Your task to perform on an android device: Go to notification settings Image 0: 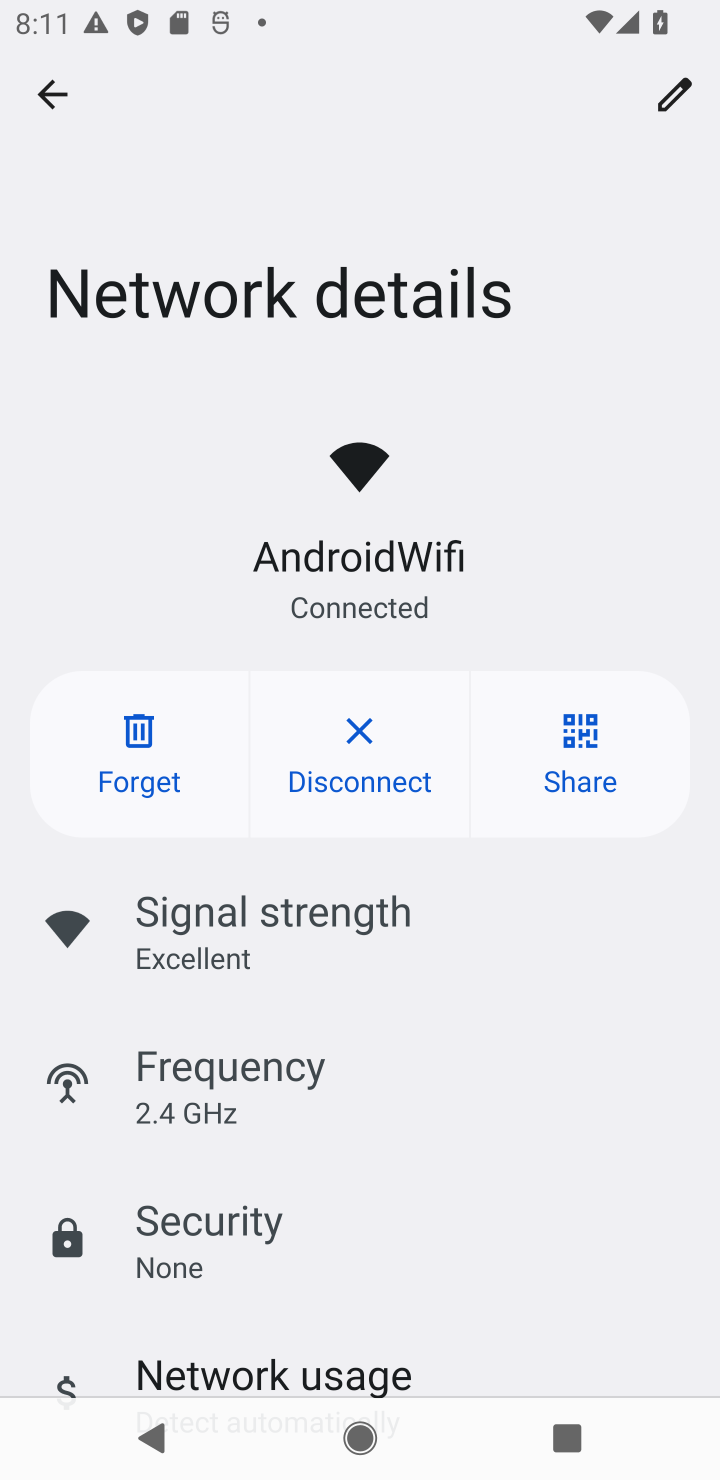
Step 0: click (56, 104)
Your task to perform on an android device: Go to notification settings Image 1: 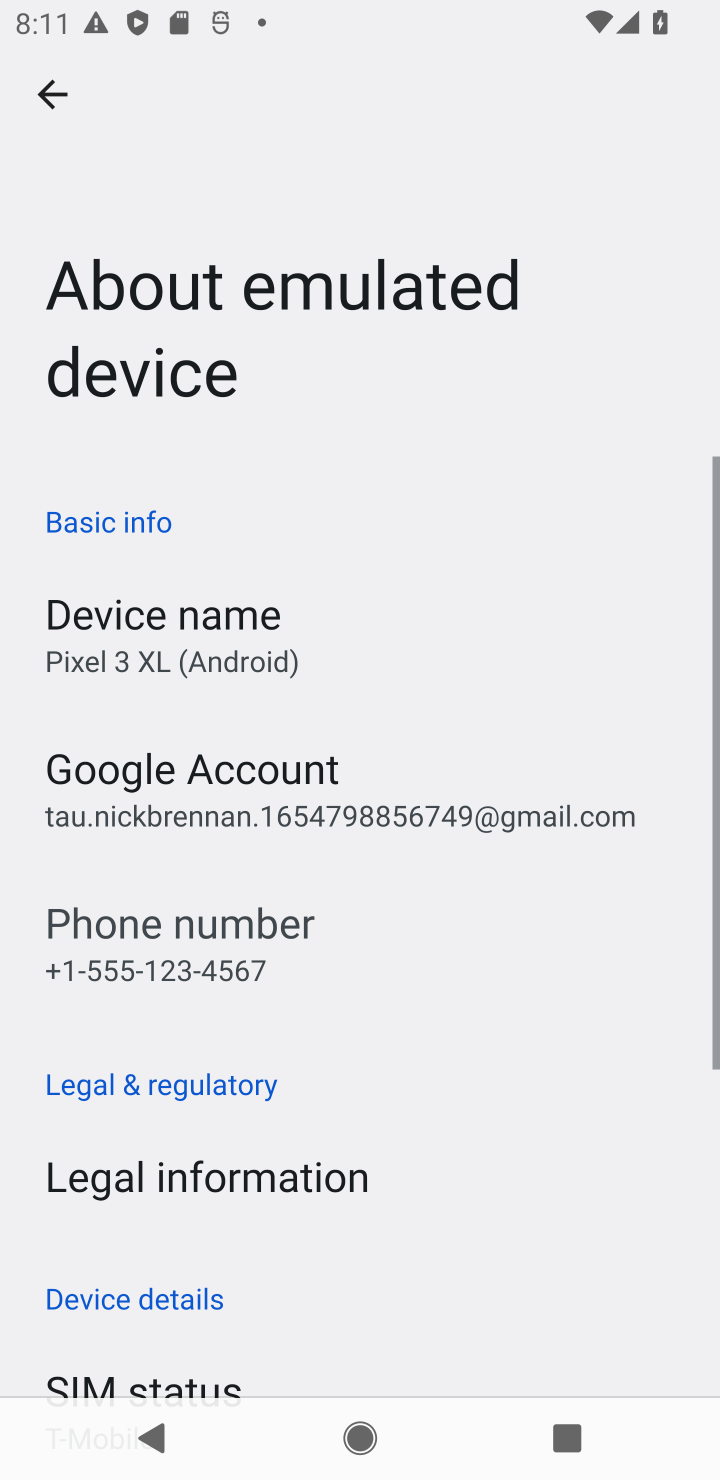
Step 1: click (89, 98)
Your task to perform on an android device: Go to notification settings Image 2: 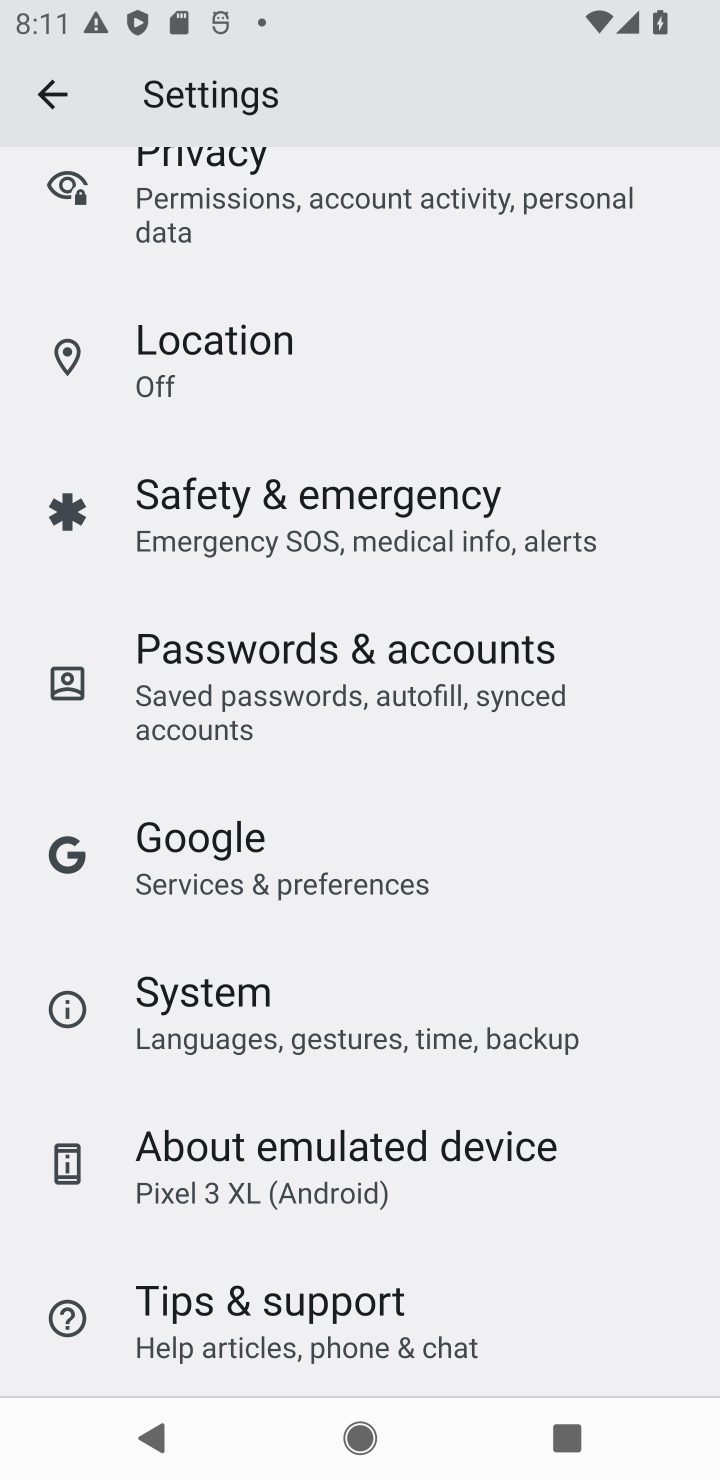
Step 2: drag from (363, 464) to (284, 1290)
Your task to perform on an android device: Go to notification settings Image 3: 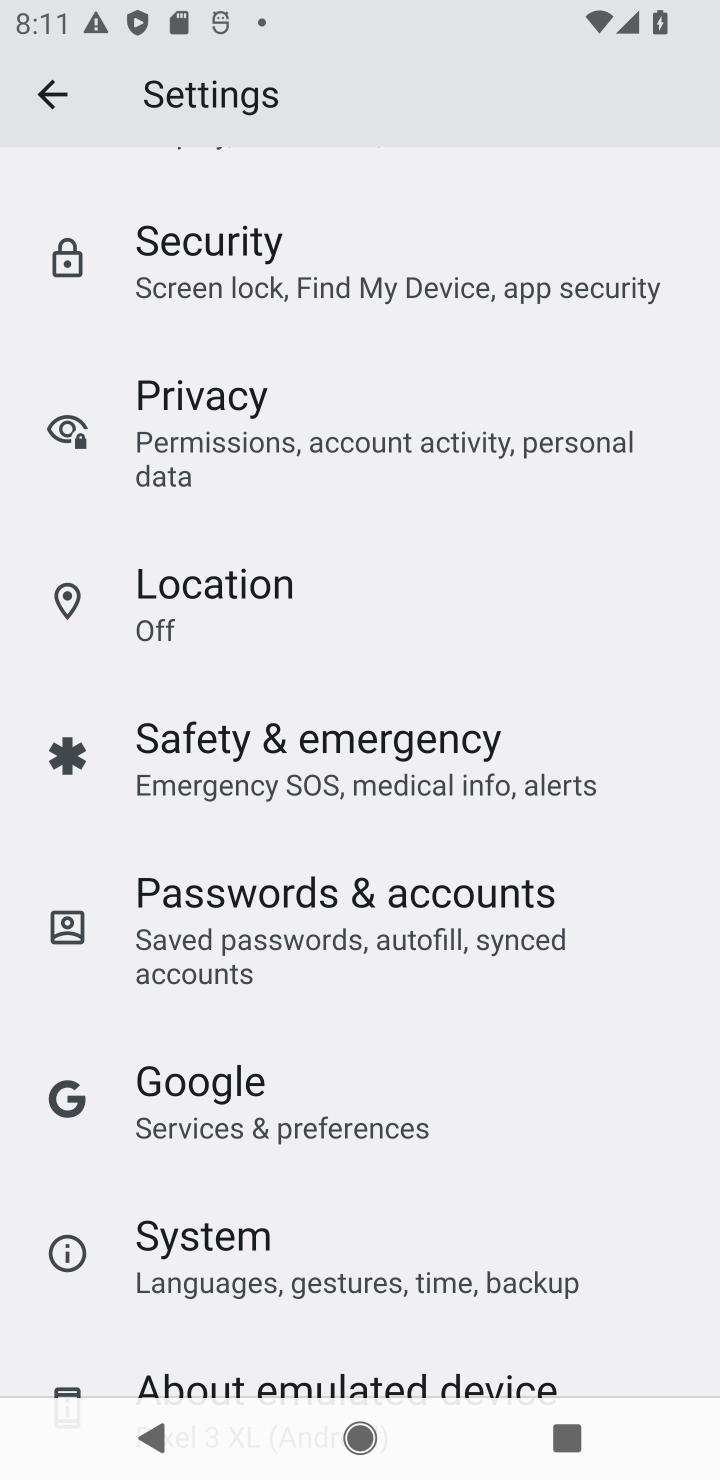
Step 3: drag from (455, 209) to (328, 943)
Your task to perform on an android device: Go to notification settings Image 4: 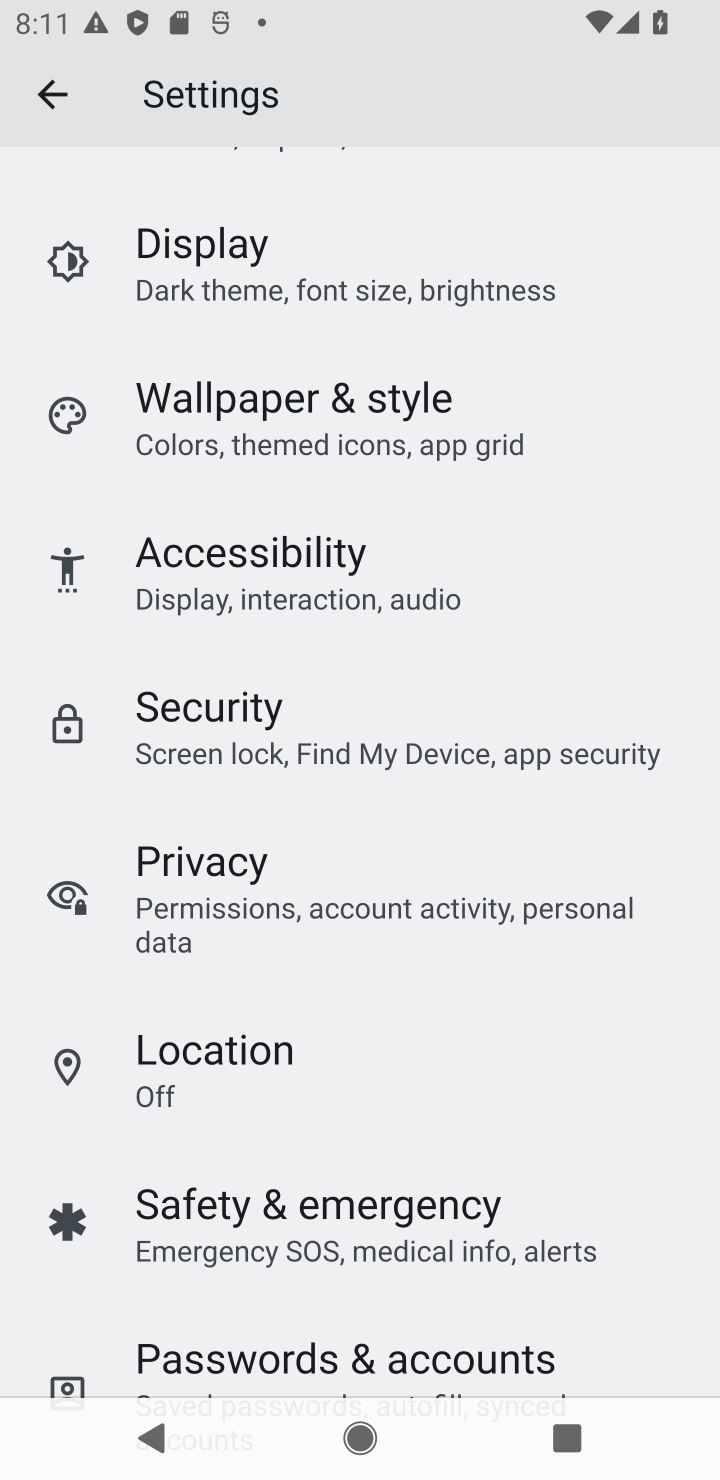
Step 4: drag from (485, 240) to (307, 1154)
Your task to perform on an android device: Go to notification settings Image 5: 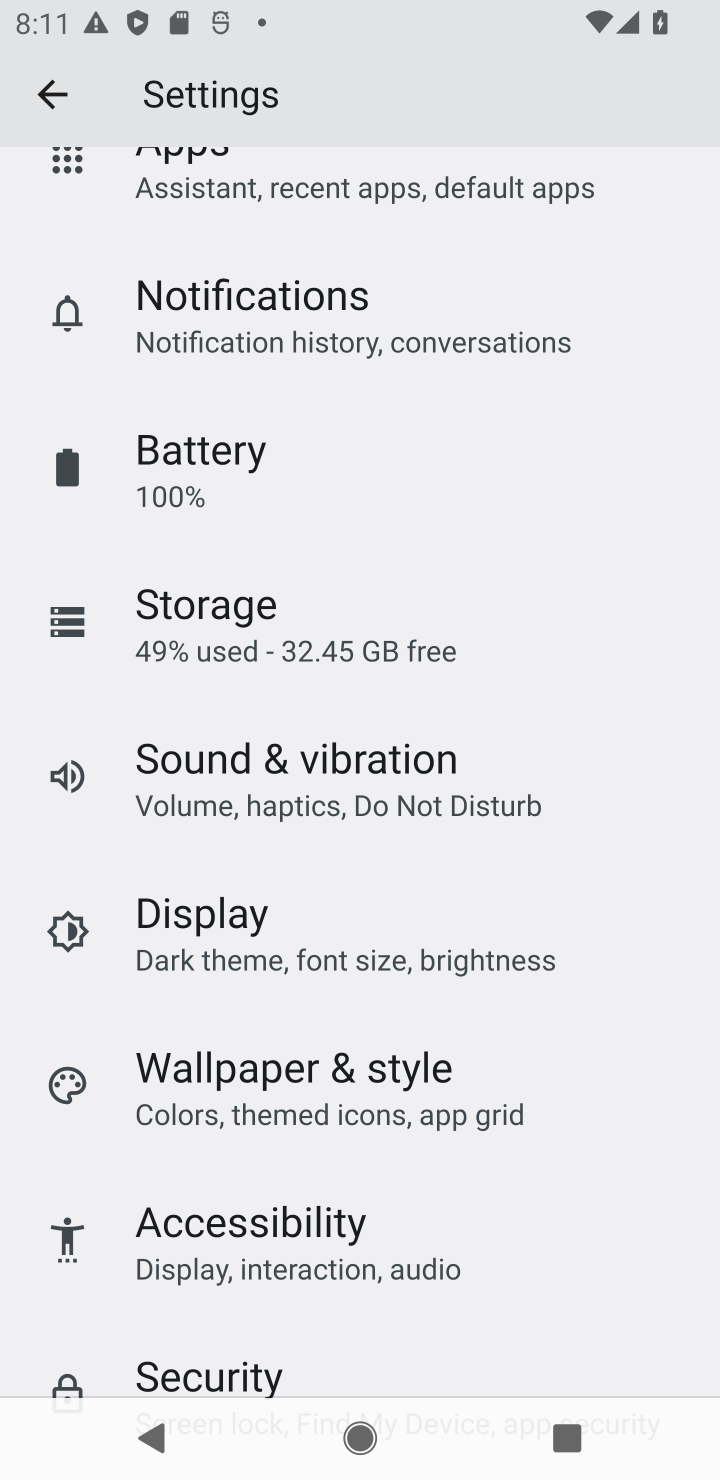
Step 5: click (454, 326)
Your task to perform on an android device: Go to notification settings Image 6: 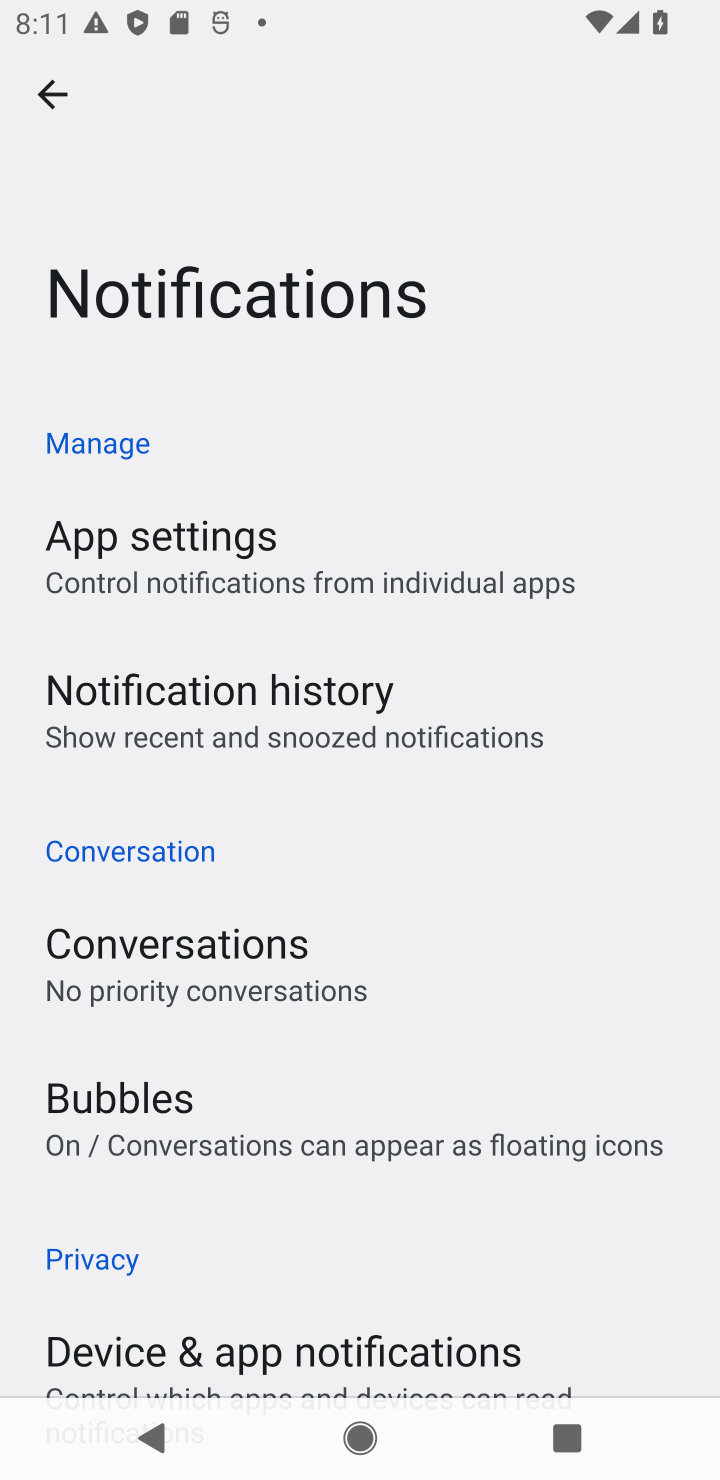
Step 6: task complete